Your task to perform on an android device: turn on bluetooth scan Image 0: 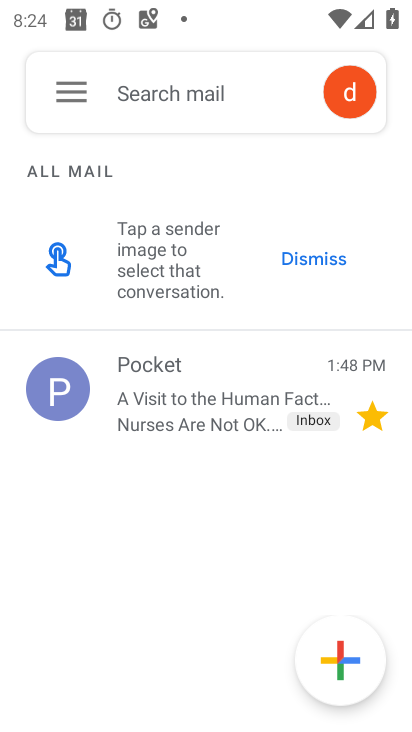
Step 0: press home button
Your task to perform on an android device: turn on bluetooth scan Image 1: 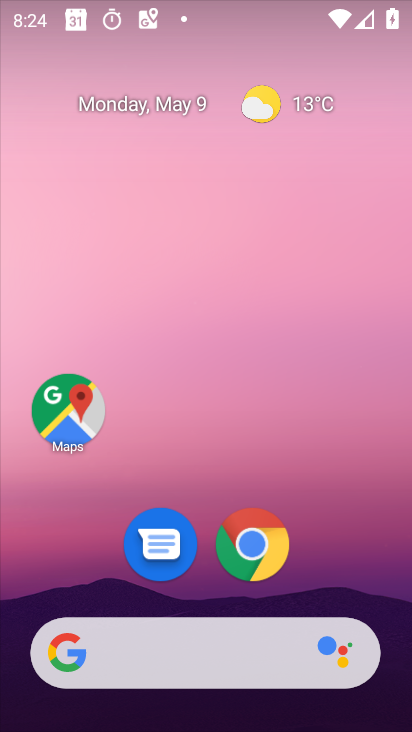
Step 1: drag from (355, 554) to (405, 57)
Your task to perform on an android device: turn on bluetooth scan Image 2: 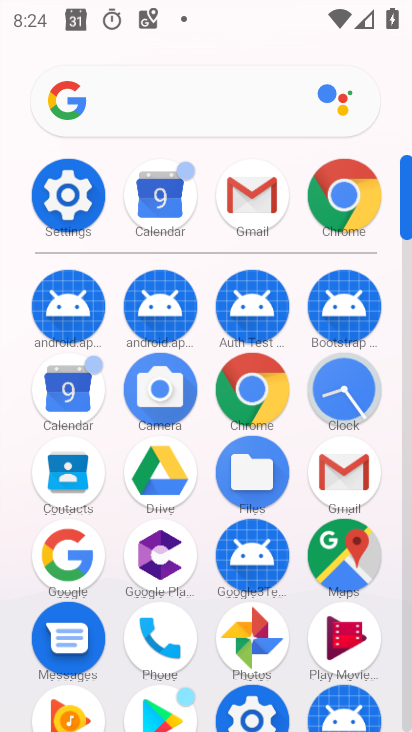
Step 2: click (85, 187)
Your task to perform on an android device: turn on bluetooth scan Image 3: 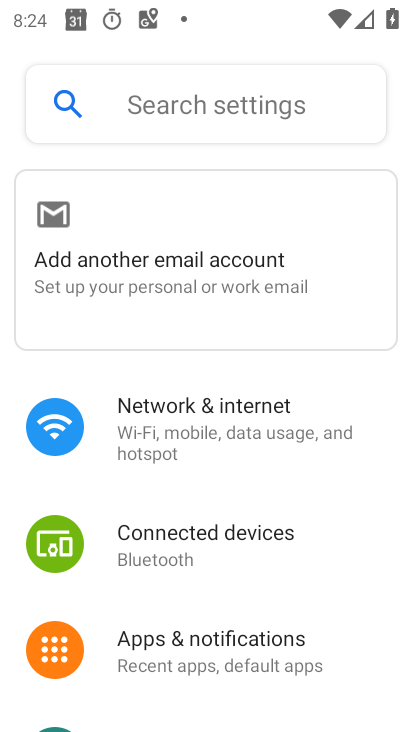
Step 3: drag from (229, 602) to (320, 173)
Your task to perform on an android device: turn on bluetooth scan Image 4: 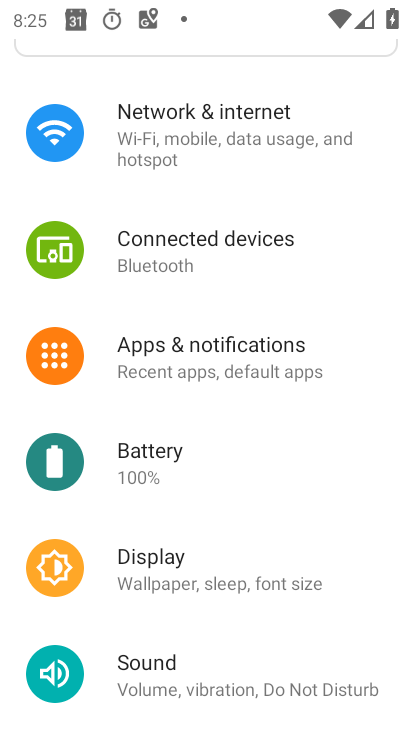
Step 4: drag from (271, 640) to (291, 238)
Your task to perform on an android device: turn on bluetooth scan Image 5: 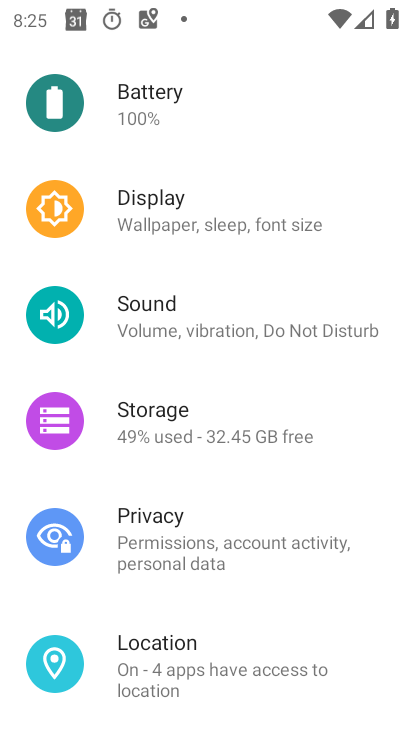
Step 5: drag from (284, 257) to (273, 654)
Your task to perform on an android device: turn on bluetooth scan Image 6: 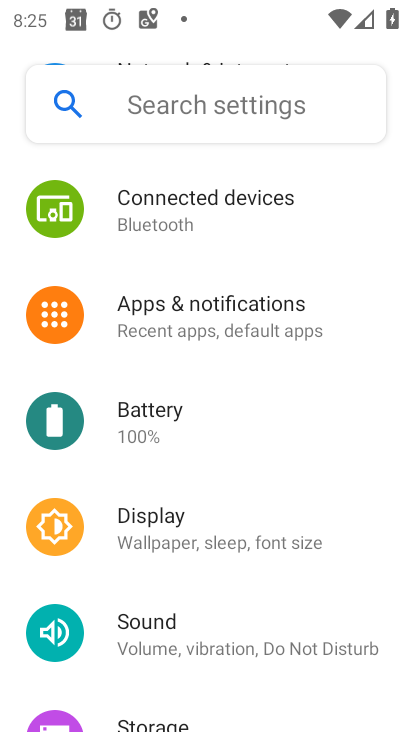
Step 6: drag from (258, 568) to (329, 171)
Your task to perform on an android device: turn on bluetooth scan Image 7: 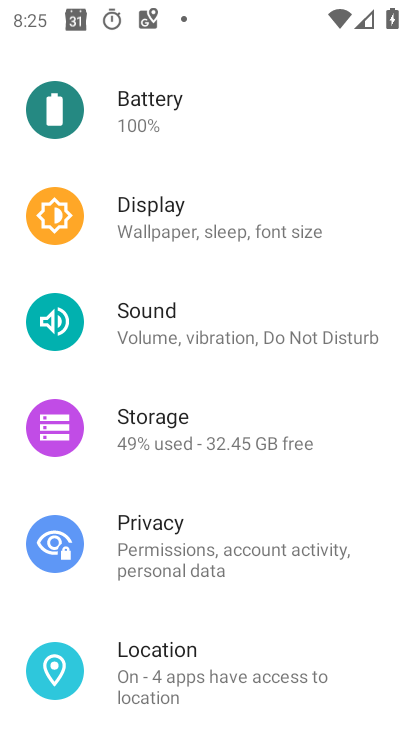
Step 7: click (194, 653)
Your task to perform on an android device: turn on bluetooth scan Image 8: 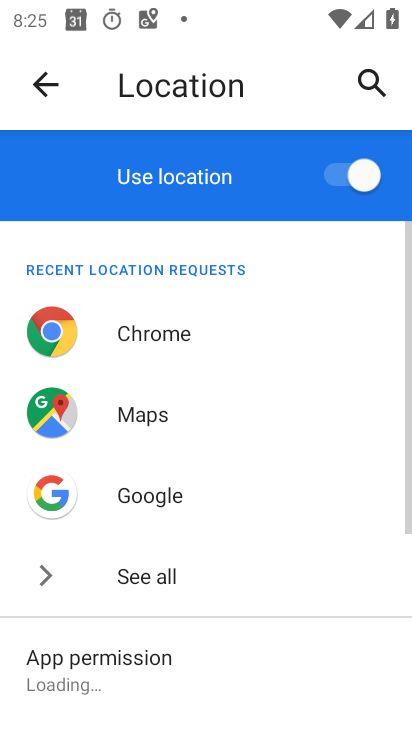
Step 8: drag from (214, 571) to (295, 201)
Your task to perform on an android device: turn on bluetooth scan Image 9: 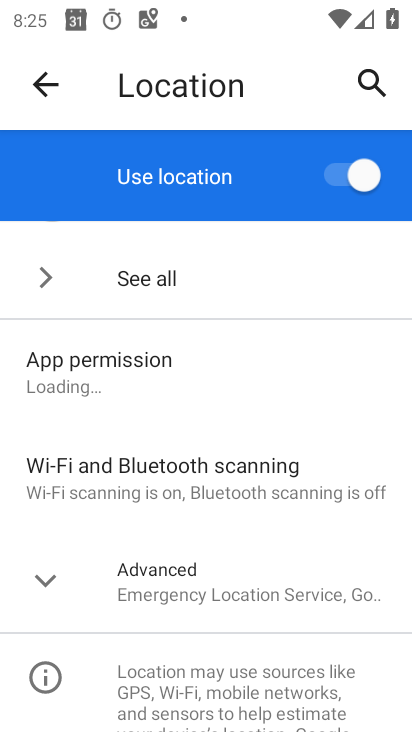
Step 9: click (210, 519)
Your task to perform on an android device: turn on bluetooth scan Image 10: 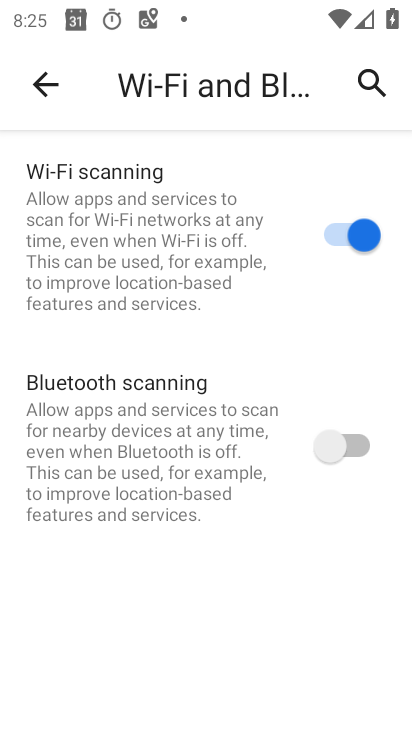
Step 10: click (336, 454)
Your task to perform on an android device: turn on bluetooth scan Image 11: 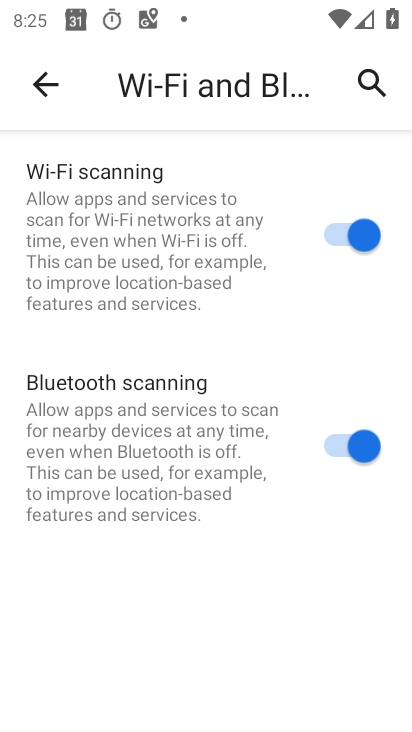
Step 11: task complete